Your task to perform on an android device: toggle notifications settings in the gmail app Image 0: 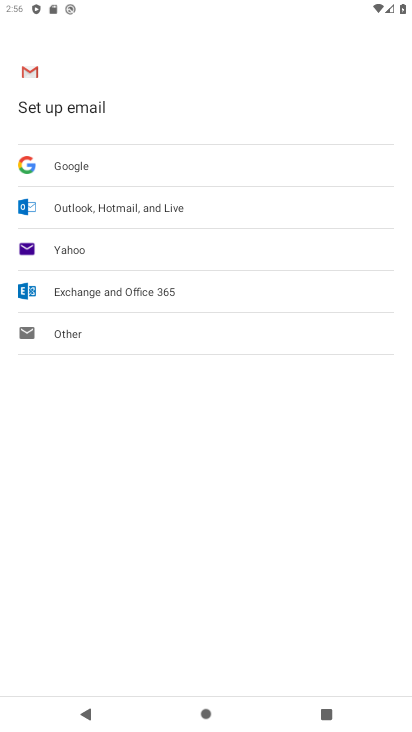
Step 0: press home button
Your task to perform on an android device: toggle notifications settings in the gmail app Image 1: 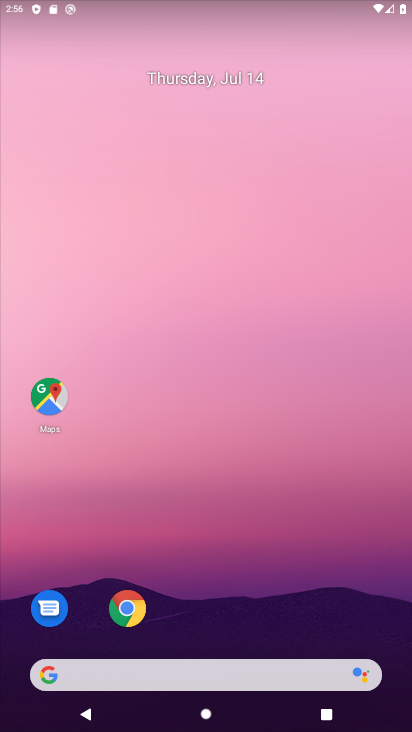
Step 1: drag from (192, 650) to (168, 123)
Your task to perform on an android device: toggle notifications settings in the gmail app Image 2: 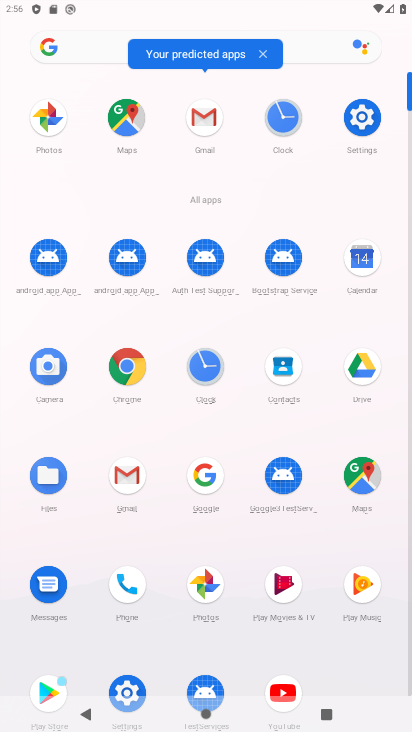
Step 2: click (124, 490)
Your task to perform on an android device: toggle notifications settings in the gmail app Image 3: 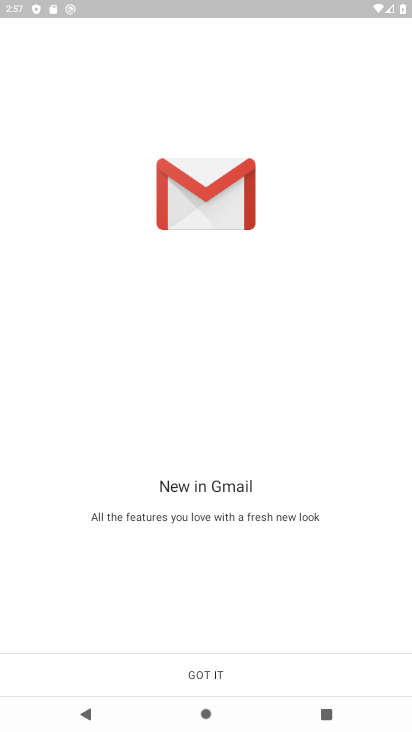
Step 3: click (206, 673)
Your task to perform on an android device: toggle notifications settings in the gmail app Image 4: 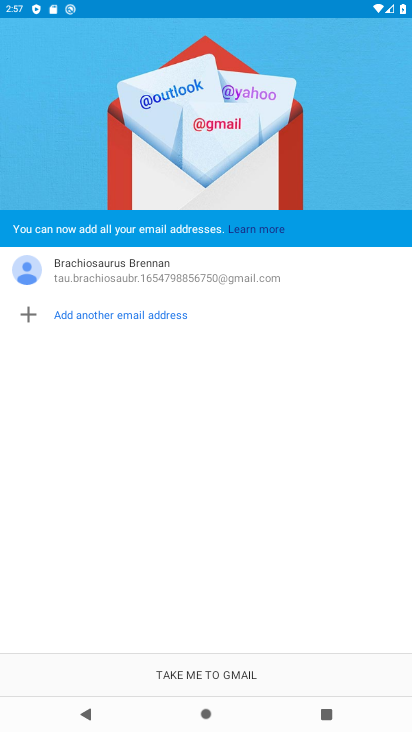
Step 4: click (213, 668)
Your task to perform on an android device: toggle notifications settings in the gmail app Image 5: 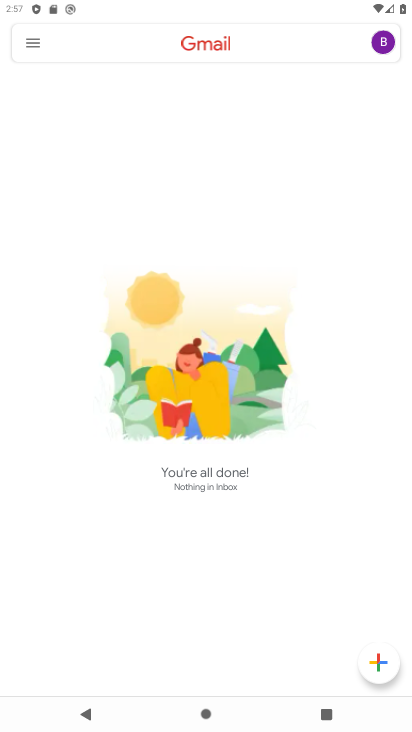
Step 5: click (30, 39)
Your task to perform on an android device: toggle notifications settings in the gmail app Image 6: 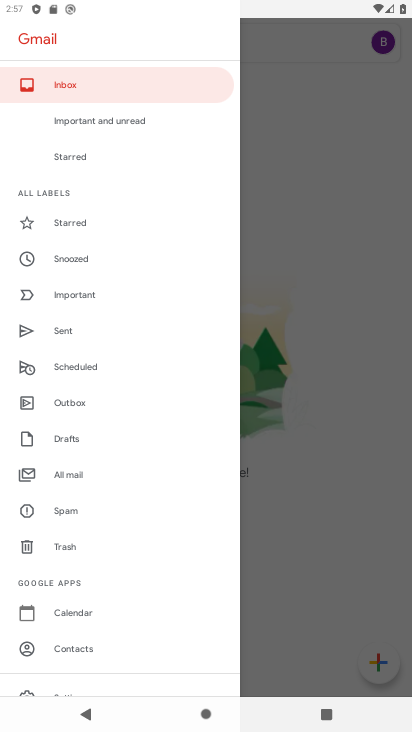
Step 6: drag from (58, 527) to (46, 184)
Your task to perform on an android device: toggle notifications settings in the gmail app Image 7: 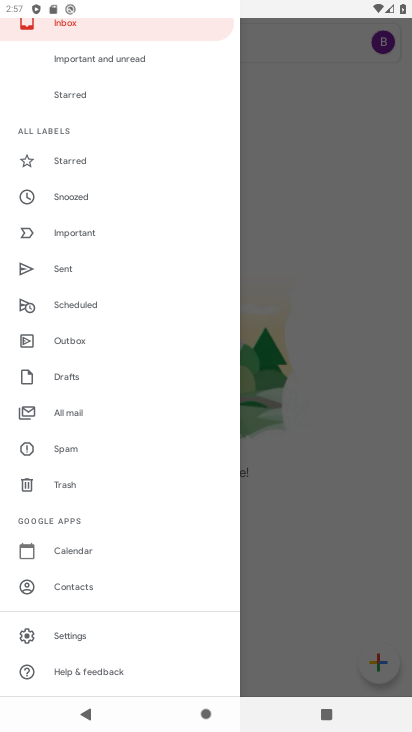
Step 7: click (67, 643)
Your task to perform on an android device: toggle notifications settings in the gmail app Image 8: 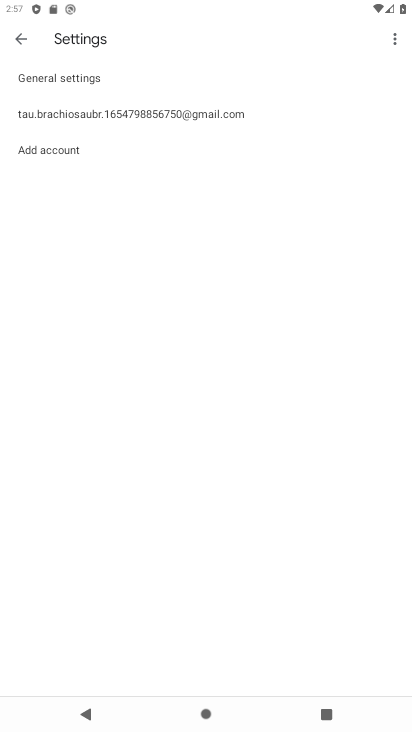
Step 8: click (34, 81)
Your task to perform on an android device: toggle notifications settings in the gmail app Image 9: 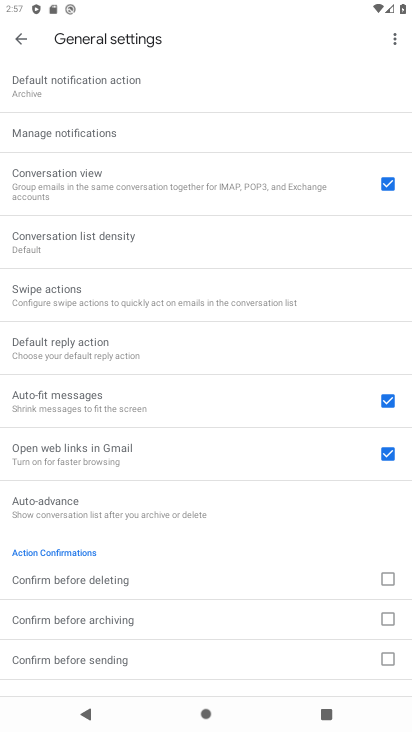
Step 9: click (120, 125)
Your task to perform on an android device: toggle notifications settings in the gmail app Image 10: 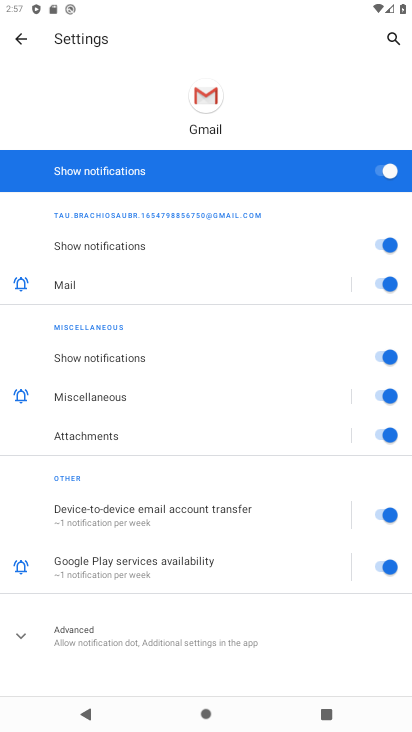
Step 10: click (376, 166)
Your task to perform on an android device: toggle notifications settings in the gmail app Image 11: 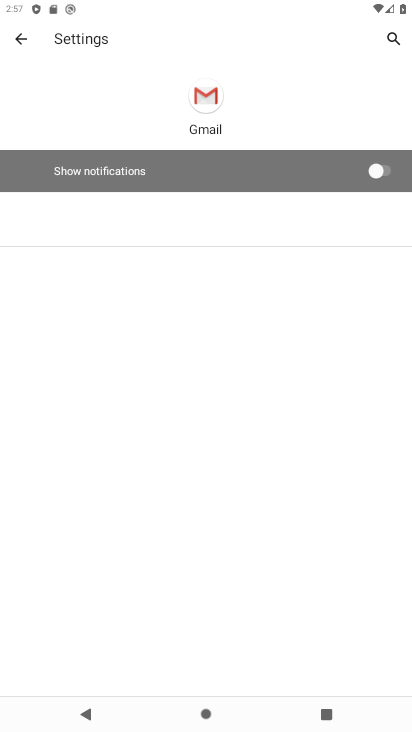
Step 11: task complete